Your task to perform on an android device: Open Google Chrome Image 0: 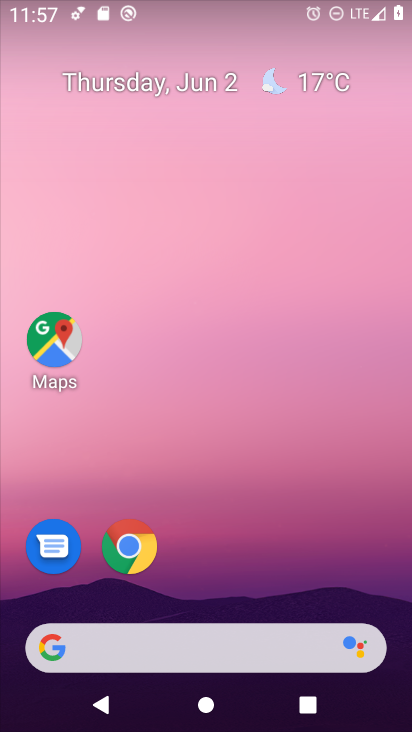
Step 0: drag from (270, 552) to (203, 10)
Your task to perform on an android device: Open Google Chrome Image 1: 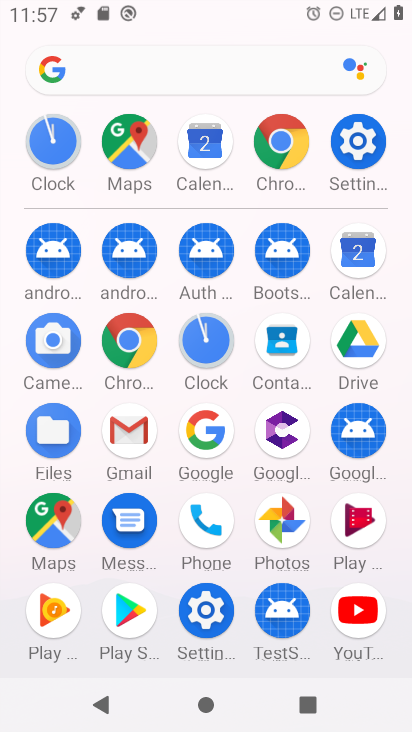
Step 1: click (125, 335)
Your task to perform on an android device: Open Google Chrome Image 2: 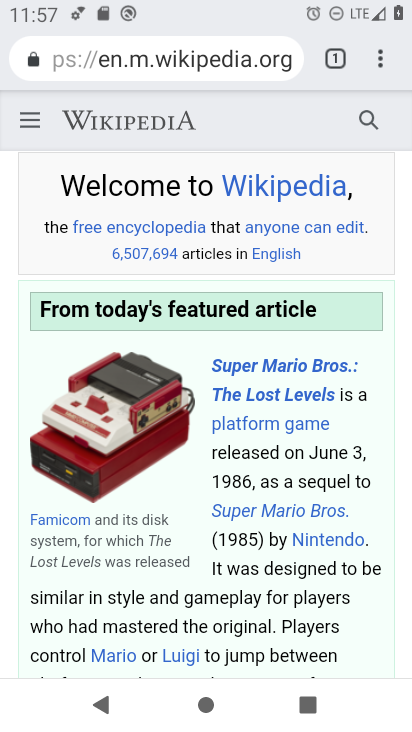
Step 2: task complete